Your task to perform on an android device: See recent photos Image 0: 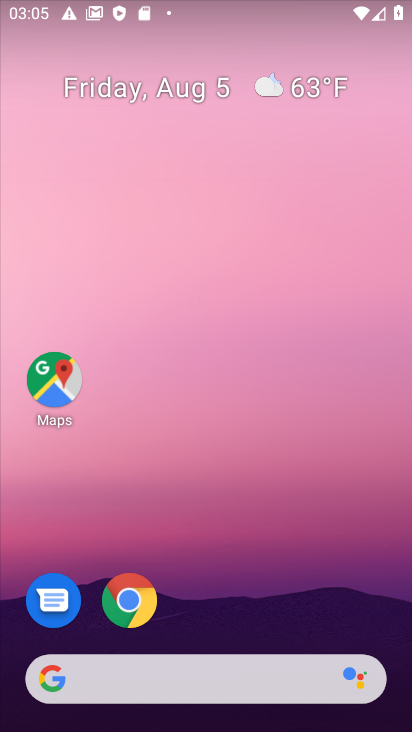
Step 0: drag from (195, 685) to (261, 245)
Your task to perform on an android device: See recent photos Image 1: 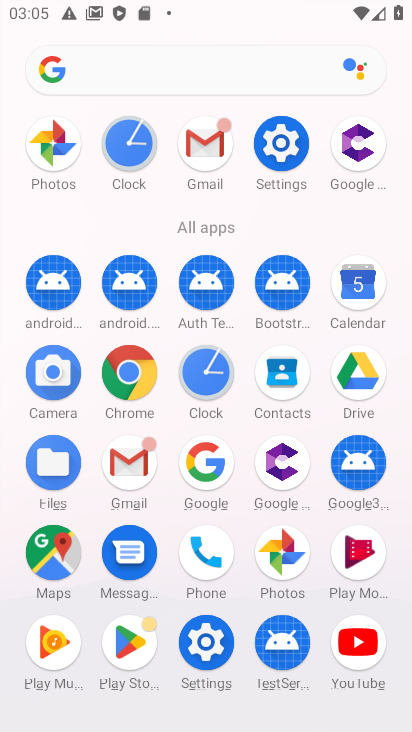
Step 1: click (53, 142)
Your task to perform on an android device: See recent photos Image 2: 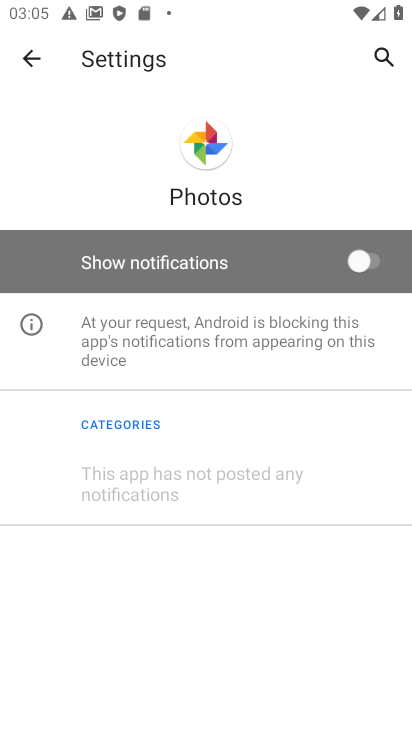
Step 2: press back button
Your task to perform on an android device: See recent photos Image 3: 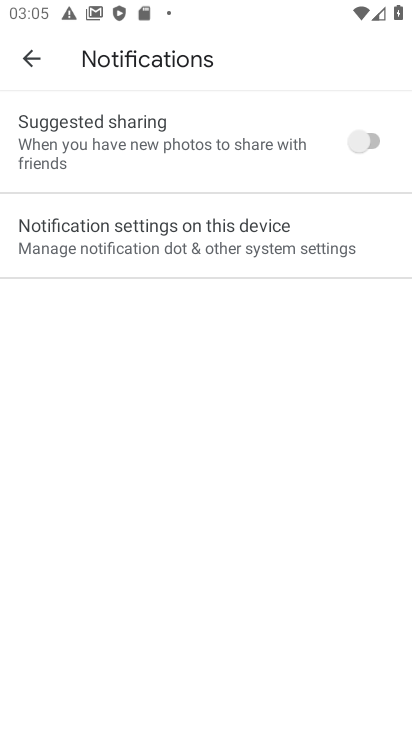
Step 3: press back button
Your task to perform on an android device: See recent photos Image 4: 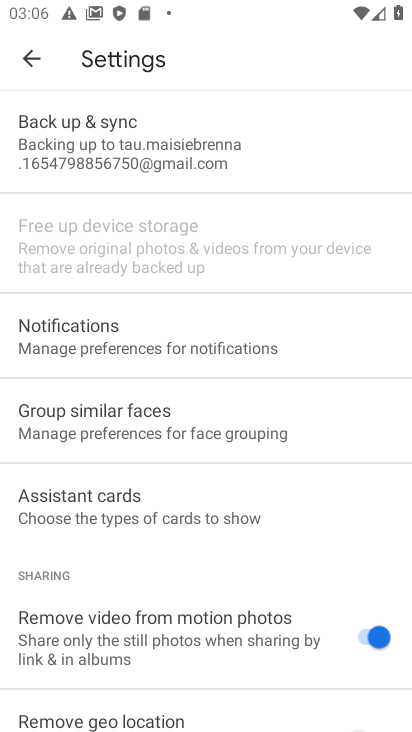
Step 4: press back button
Your task to perform on an android device: See recent photos Image 5: 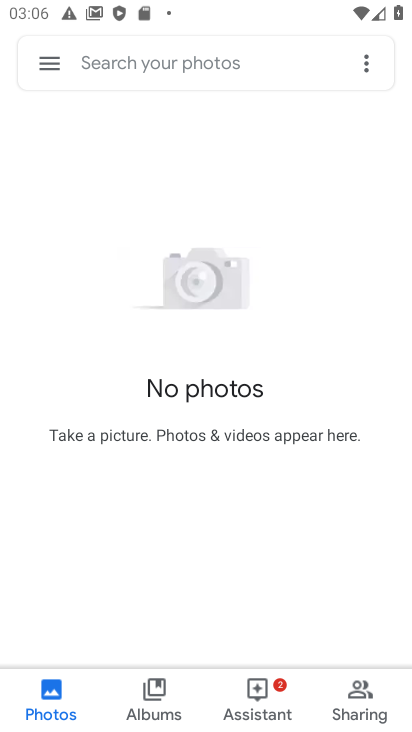
Step 5: click (154, 699)
Your task to perform on an android device: See recent photos Image 6: 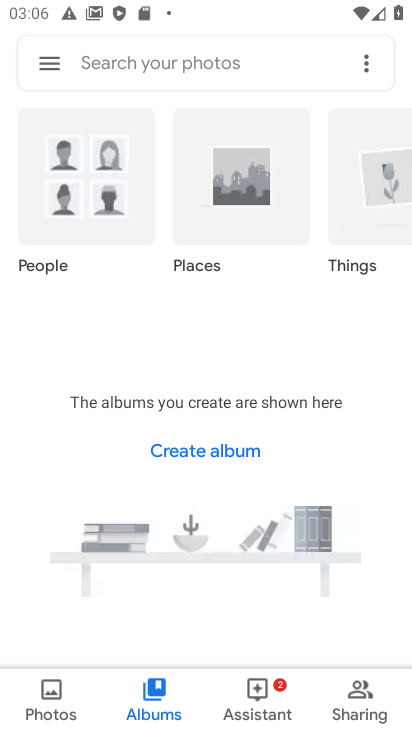
Step 6: click (229, 168)
Your task to perform on an android device: See recent photos Image 7: 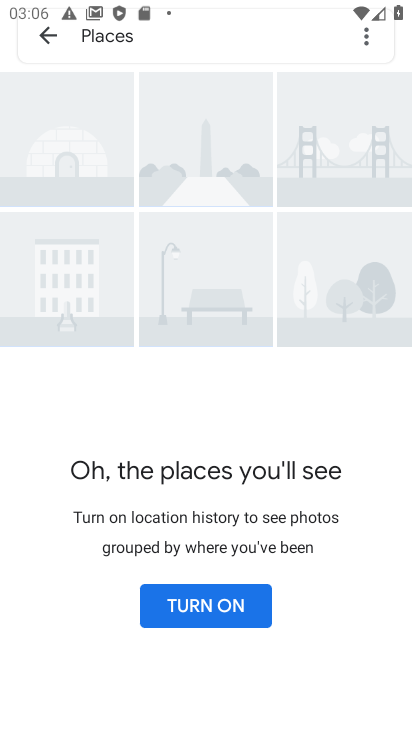
Step 7: press back button
Your task to perform on an android device: See recent photos Image 8: 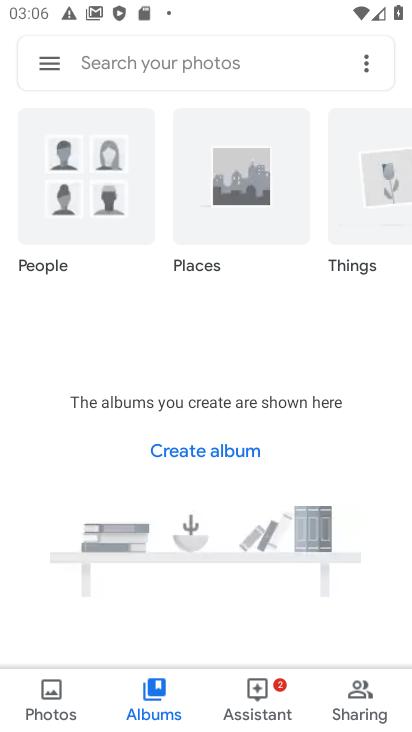
Step 8: click (374, 189)
Your task to perform on an android device: See recent photos Image 9: 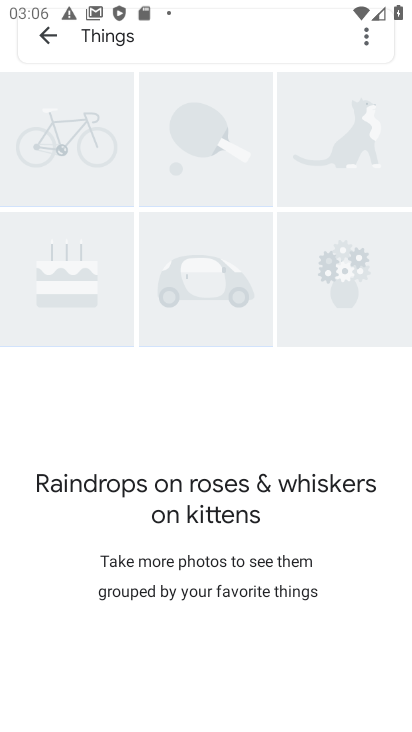
Step 9: press back button
Your task to perform on an android device: See recent photos Image 10: 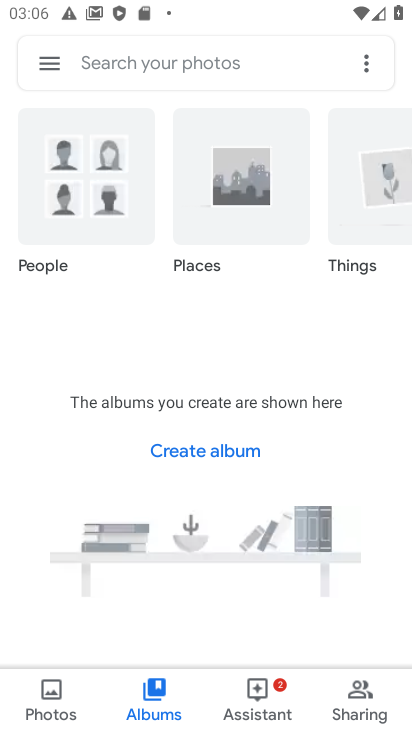
Step 10: click (140, 235)
Your task to perform on an android device: See recent photos Image 11: 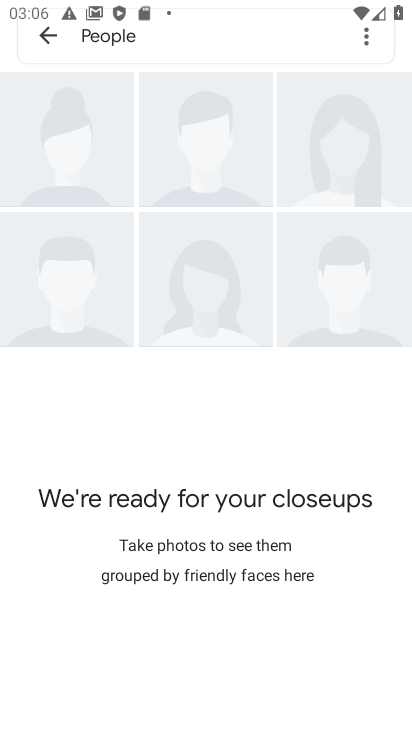
Step 11: task complete